Your task to perform on an android device: turn off airplane mode Image 0: 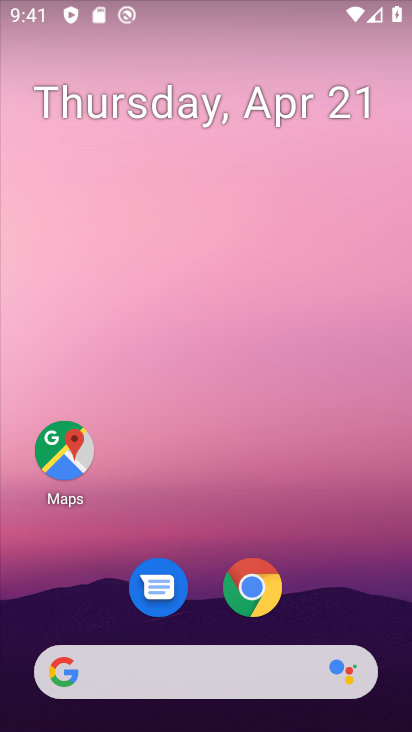
Step 0: drag from (358, 599) to (359, 67)
Your task to perform on an android device: turn off airplane mode Image 1: 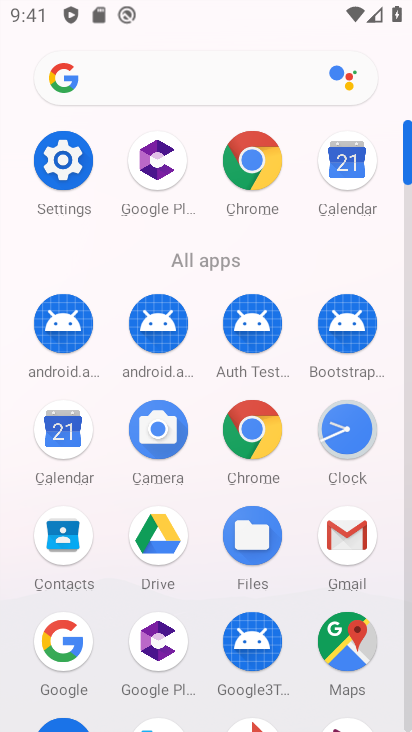
Step 1: click (77, 172)
Your task to perform on an android device: turn off airplane mode Image 2: 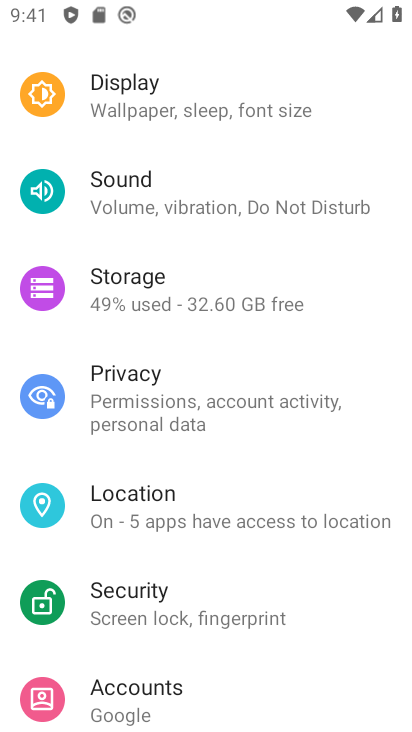
Step 2: drag from (309, 615) to (354, 323)
Your task to perform on an android device: turn off airplane mode Image 3: 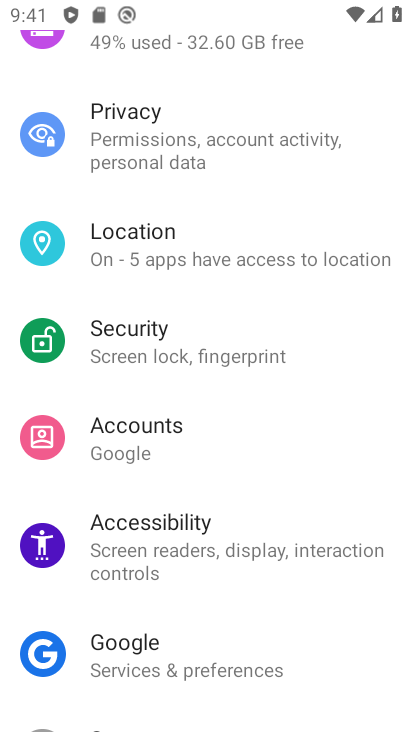
Step 3: drag from (320, 628) to (338, 302)
Your task to perform on an android device: turn off airplane mode Image 4: 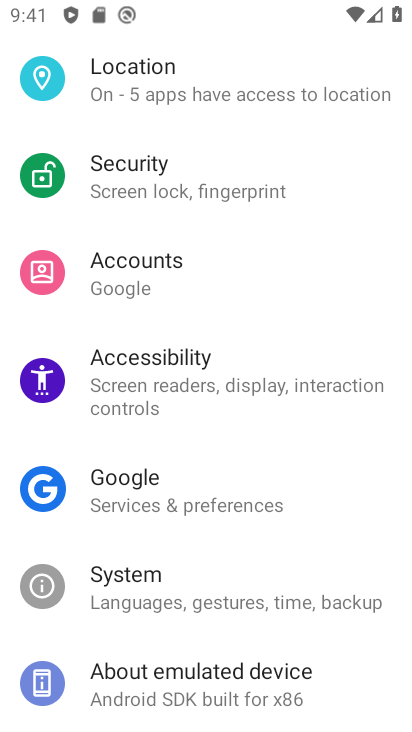
Step 4: drag from (345, 231) to (327, 517)
Your task to perform on an android device: turn off airplane mode Image 5: 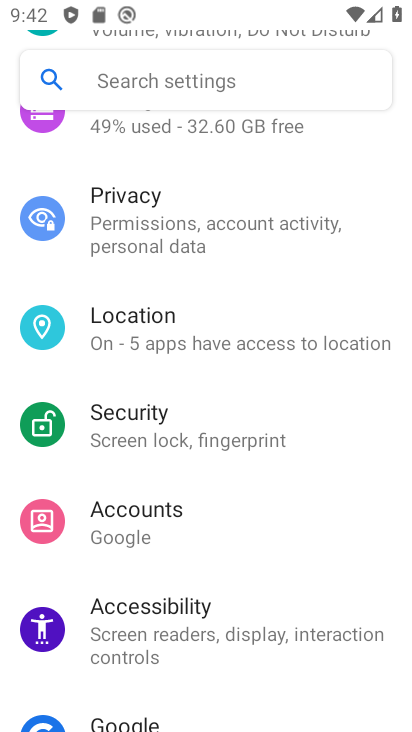
Step 5: drag from (317, 346) to (323, 516)
Your task to perform on an android device: turn off airplane mode Image 6: 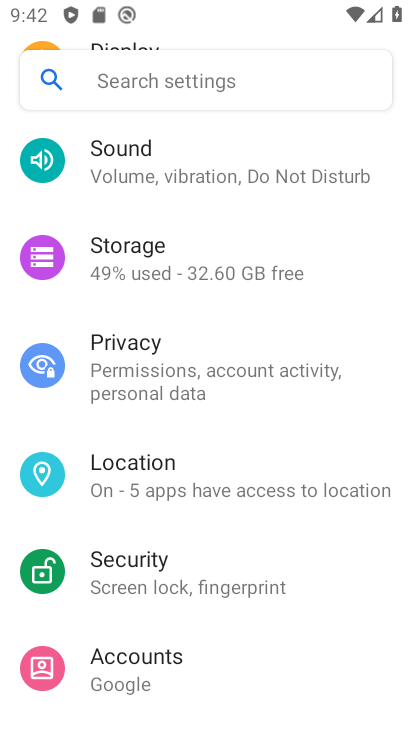
Step 6: drag from (369, 279) to (358, 460)
Your task to perform on an android device: turn off airplane mode Image 7: 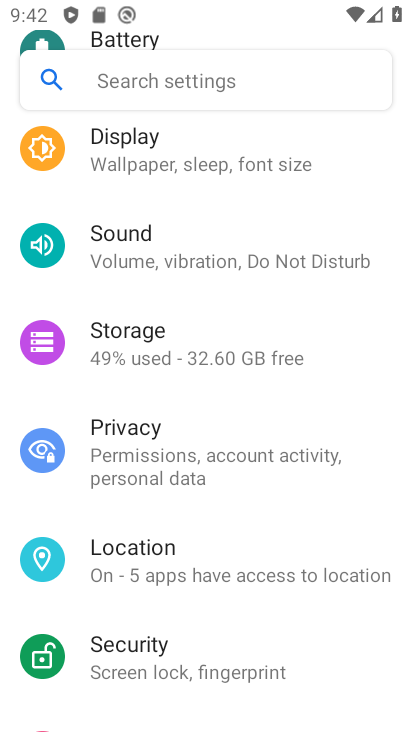
Step 7: drag from (375, 204) to (370, 494)
Your task to perform on an android device: turn off airplane mode Image 8: 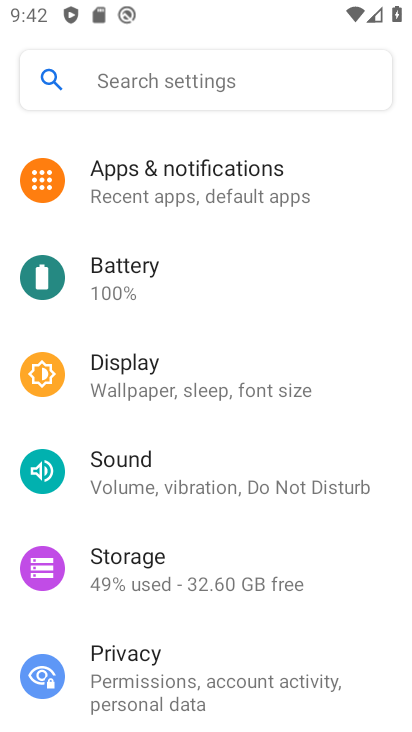
Step 8: drag from (368, 213) to (374, 445)
Your task to perform on an android device: turn off airplane mode Image 9: 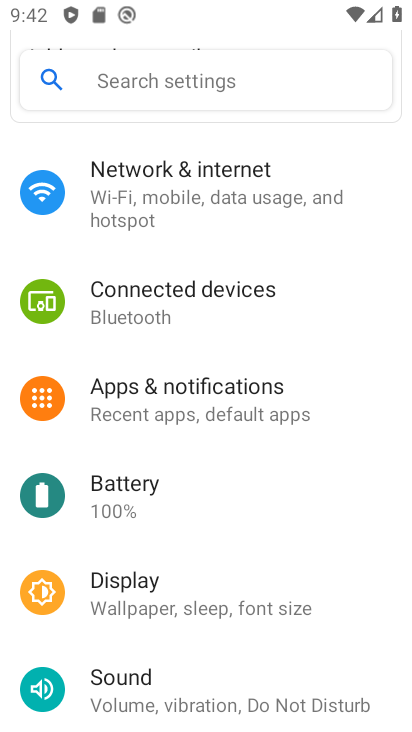
Step 9: drag from (353, 330) to (345, 471)
Your task to perform on an android device: turn off airplane mode Image 10: 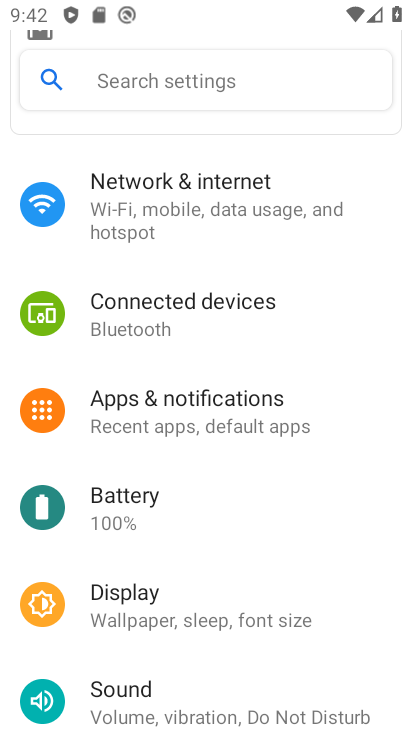
Step 10: click (236, 199)
Your task to perform on an android device: turn off airplane mode Image 11: 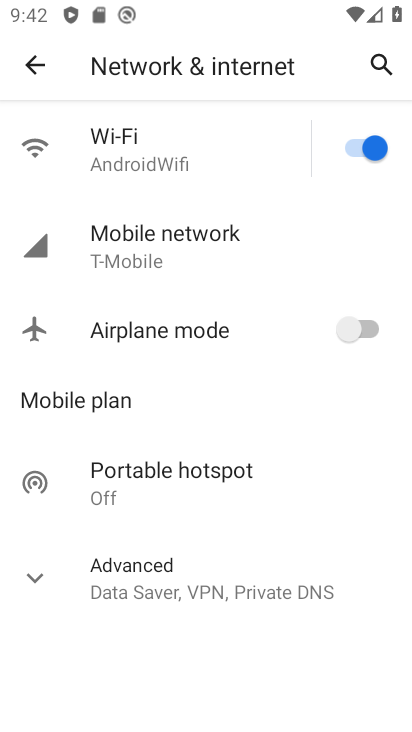
Step 11: task complete